Your task to perform on an android device: toggle airplane mode Image 0: 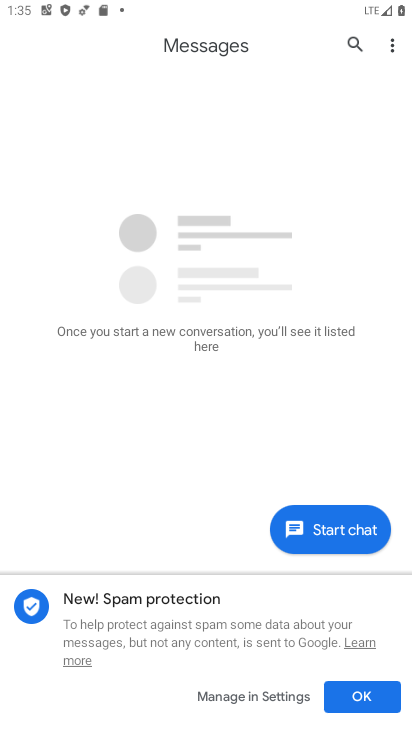
Step 0: press home button
Your task to perform on an android device: toggle airplane mode Image 1: 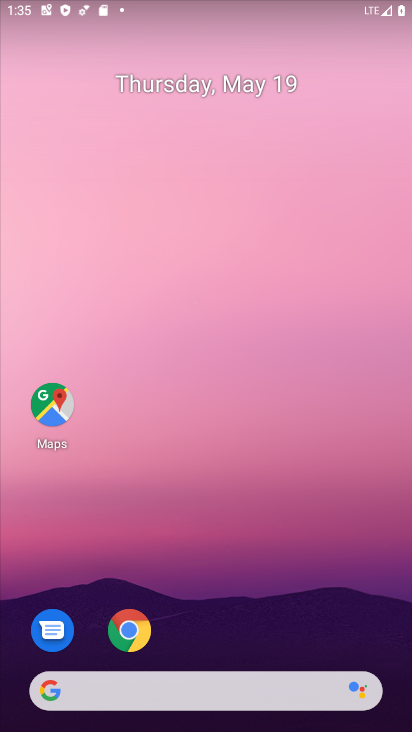
Step 1: drag from (203, 656) to (131, 98)
Your task to perform on an android device: toggle airplane mode Image 2: 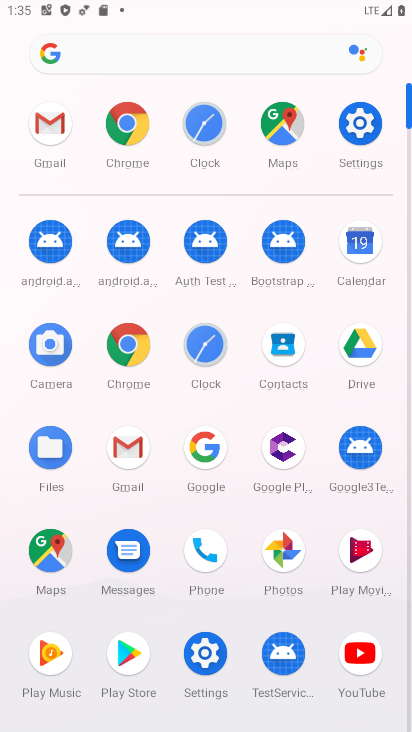
Step 2: click (362, 130)
Your task to perform on an android device: toggle airplane mode Image 3: 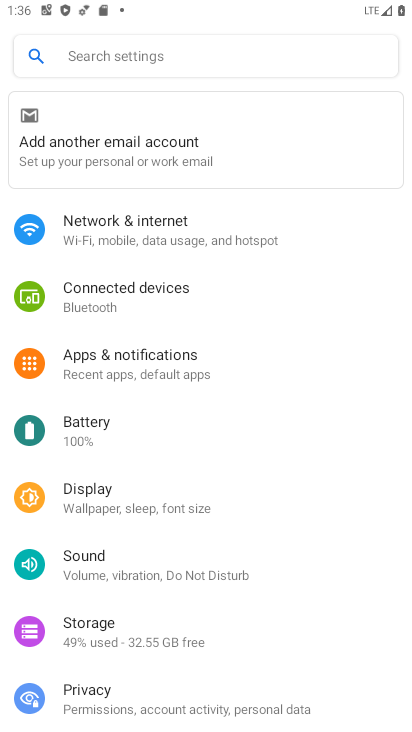
Step 3: click (134, 224)
Your task to perform on an android device: toggle airplane mode Image 4: 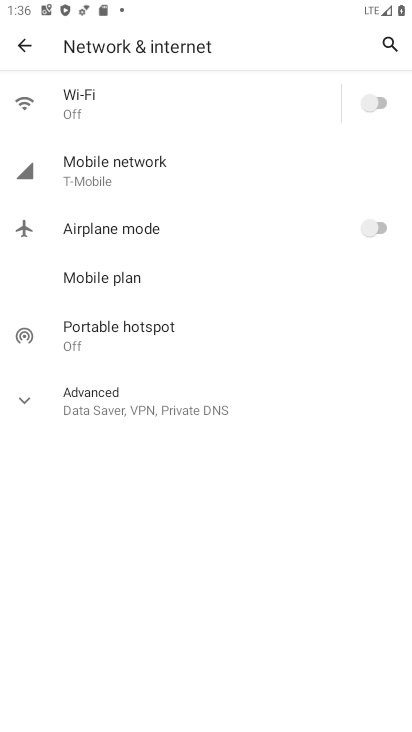
Step 4: click (169, 233)
Your task to perform on an android device: toggle airplane mode Image 5: 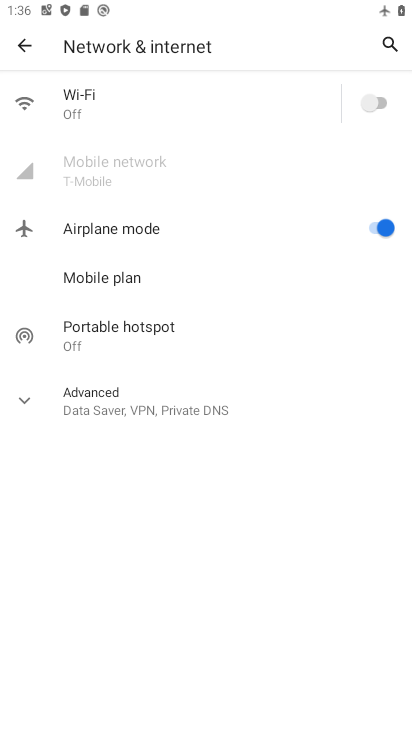
Step 5: task complete